Your task to perform on an android device: turn off improve location accuracy Image 0: 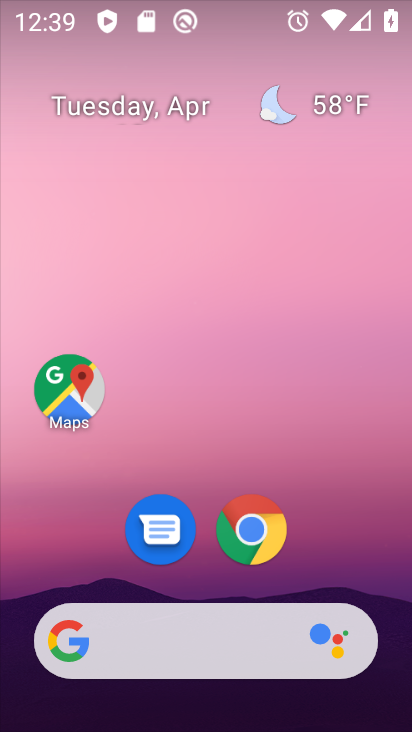
Step 0: drag from (386, 624) to (220, 34)
Your task to perform on an android device: turn off improve location accuracy Image 1: 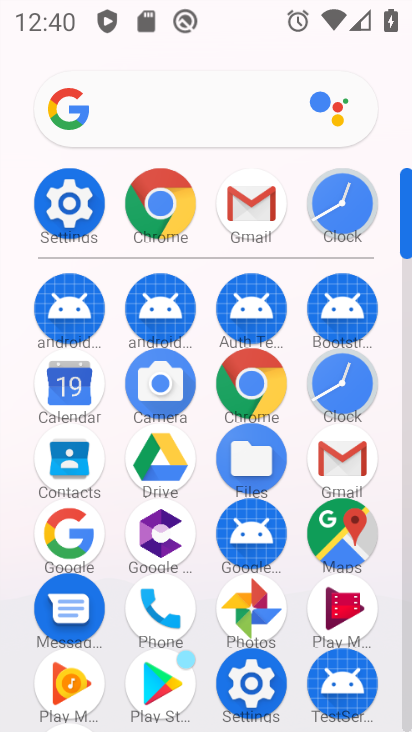
Step 1: click (70, 214)
Your task to perform on an android device: turn off improve location accuracy Image 2: 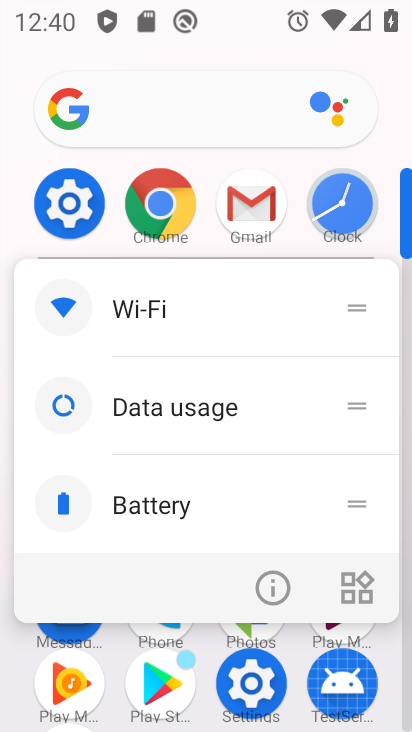
Step 2: click (70, 214)
Your task to perform on an android device: turn off improve location accuracy Image 3: 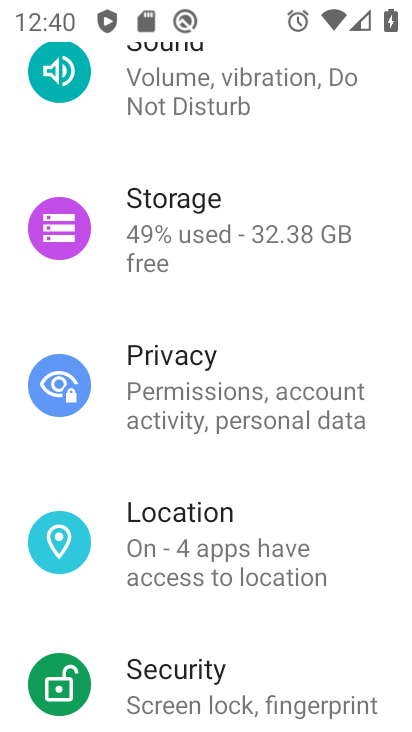
Step 3: click (251, 549)
Your task to perform on an android device: turn off improve location accuracy Image 4: 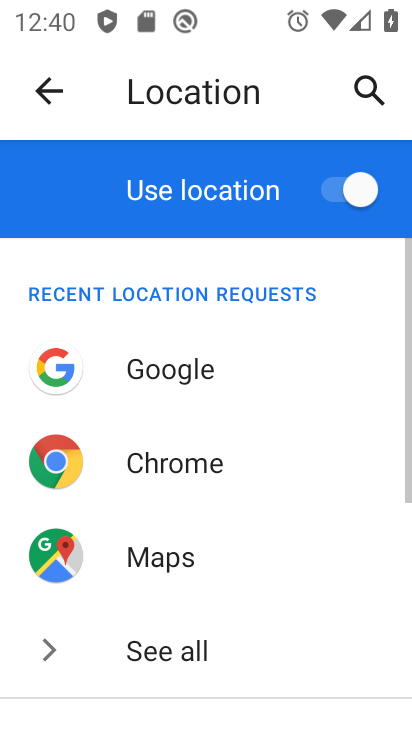
Step 4: drag from (174, 662) to (191, 102)
Your task to perform on an android device: turn off improve location accuracy Image 5: 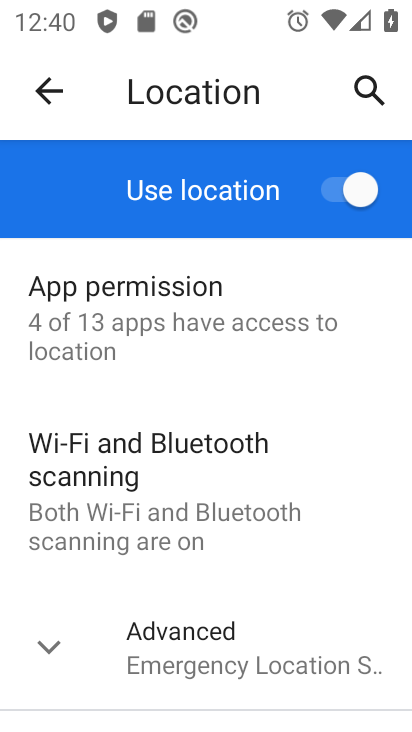
Step 5: click (70, 638)
Your task to perform on an android device: turn off improve location accuracy Image 6: 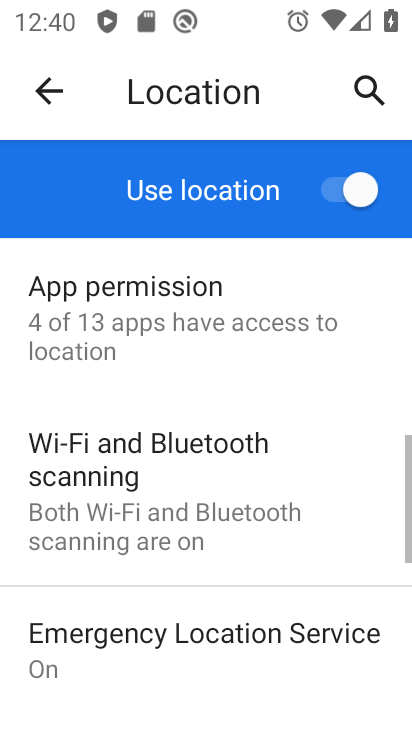
Step 6: drag from (83, 650) to (212, 215)
Your task to perform on an android device: turn off improve location accuracy Image 7: 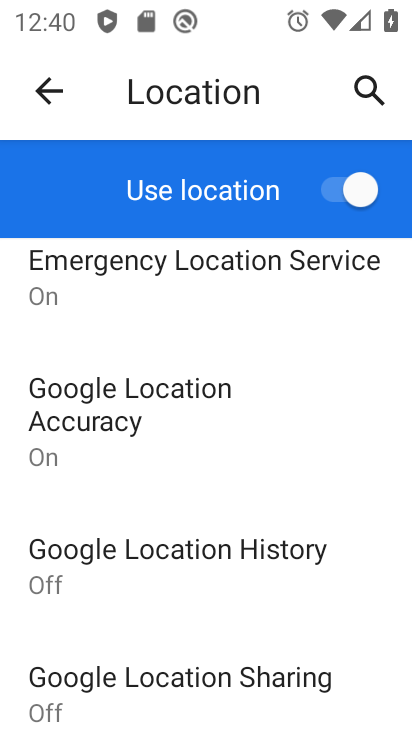
Step 7: click (148, 445)
Your task to perform on an android device: turn off improve location accuracy Image 8: 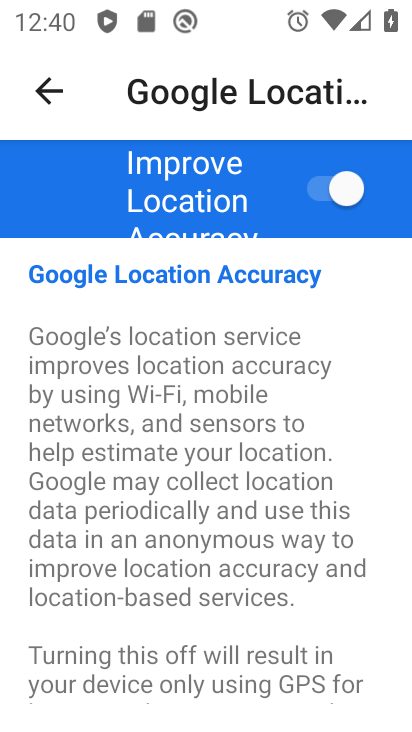
Step 8: click (309, 207)
Your task to perform on an android device: turn off improve location accuracy Image 9: 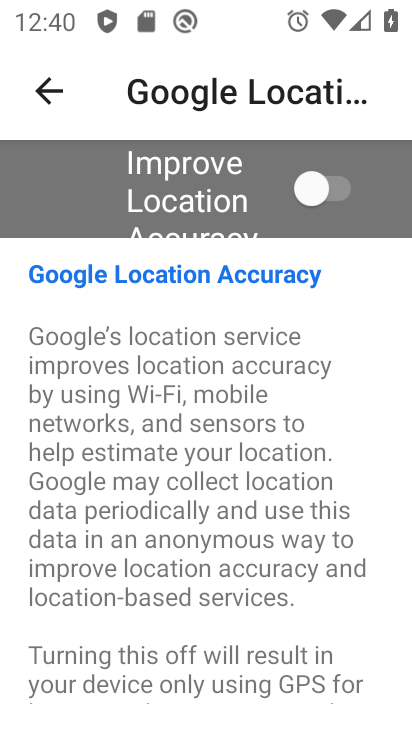
Step 9: task complete